Your task to perform on an android device: Open the map Image 0: 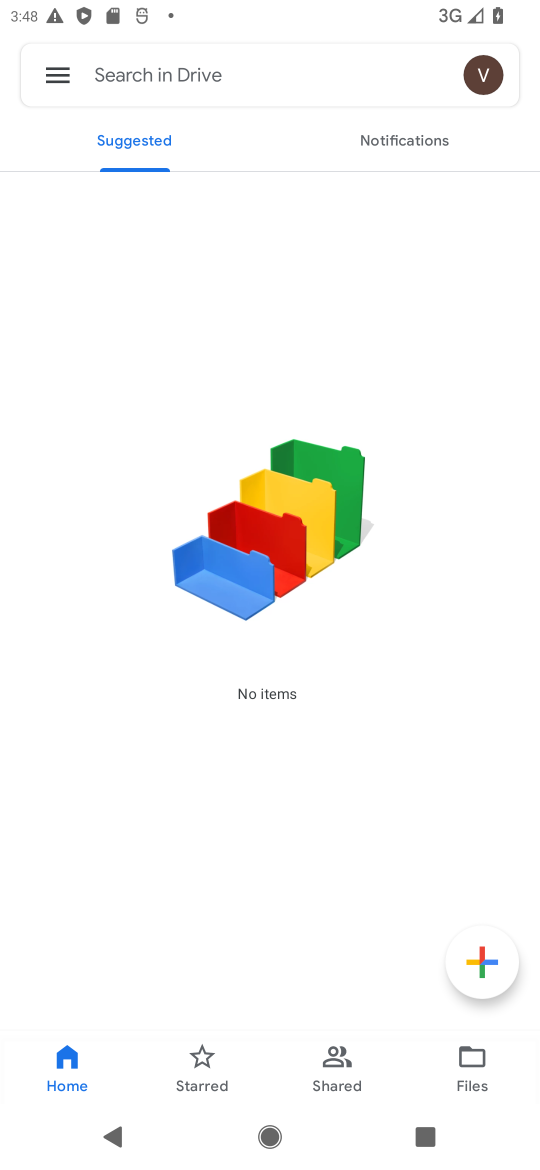
Step 0: press home button
Your task to perform on an android device: Open the map Image 1: 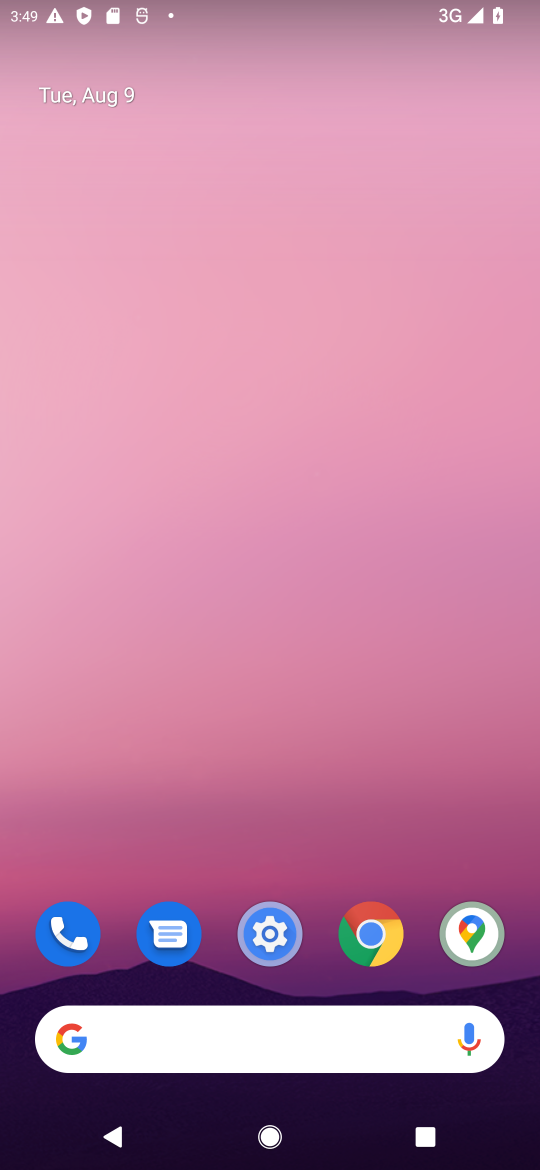
Step 1: press home button
Your task to perform on an android device: Open the map Image 2: 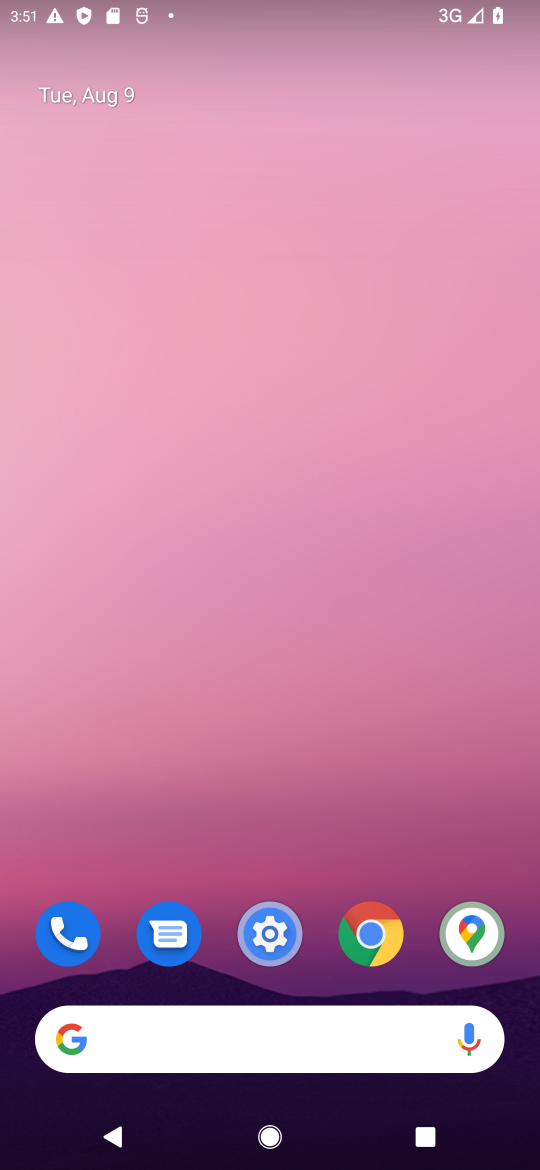
Step 2: click (480, 945)
Your task to perform on an android device: Open the map Image 3: 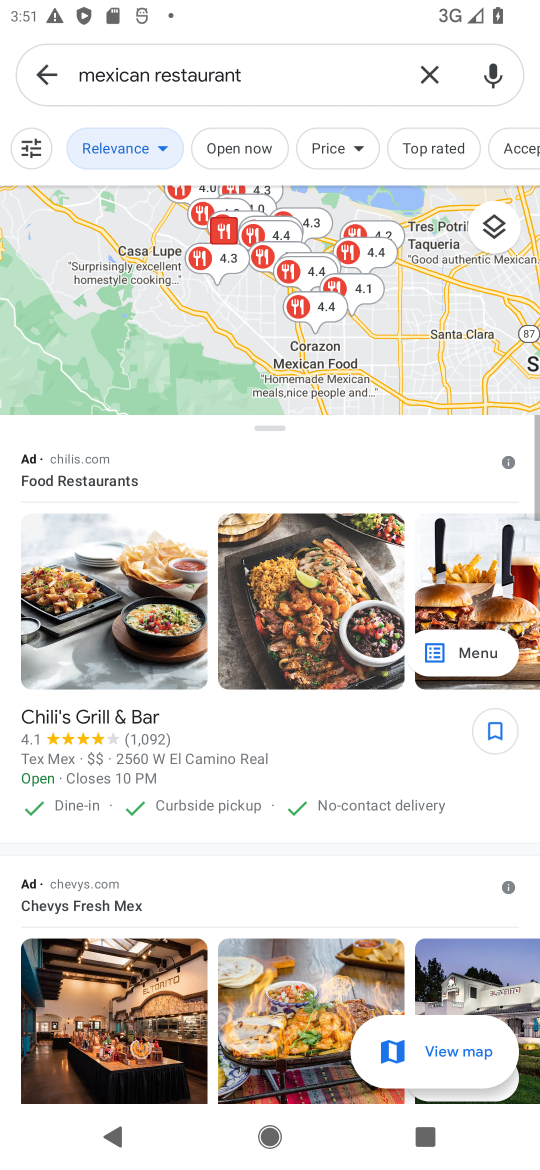
Step 3: task complete